Your task to perform on an android device: Turn off the flashlight Image 0: 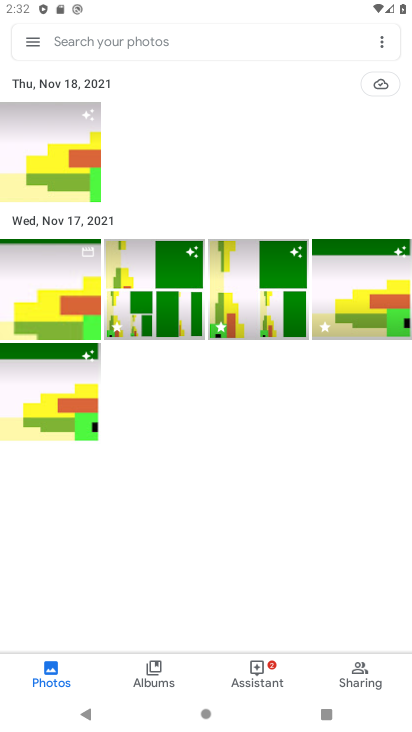
Step 0: press home button
Your task to perform on an android device: Turn off the flashlight Image 1: 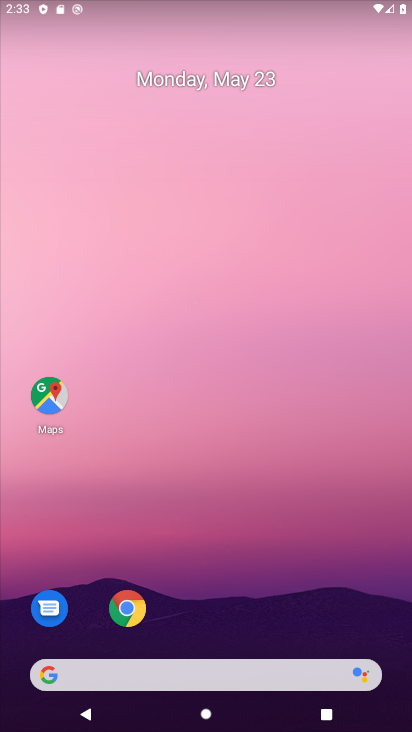
Step 1: drag from (203, 594) to (259, 252)
Your task to perform on an android device: Turn off the flashlight Image 2: 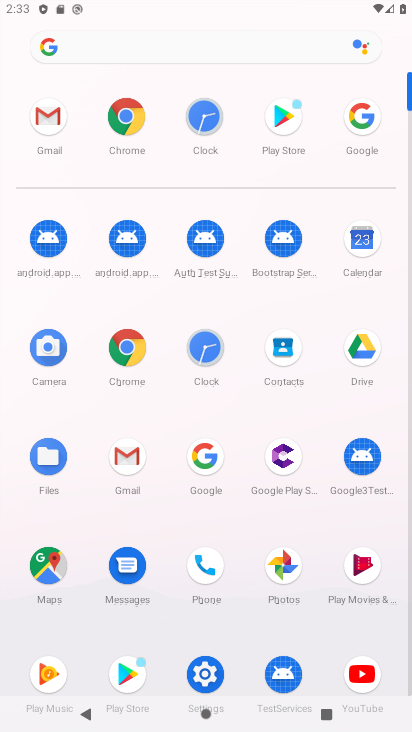
Step 2: click (202, 668)
Your task to perform on an android device: Turn off the flashlight Image 3: 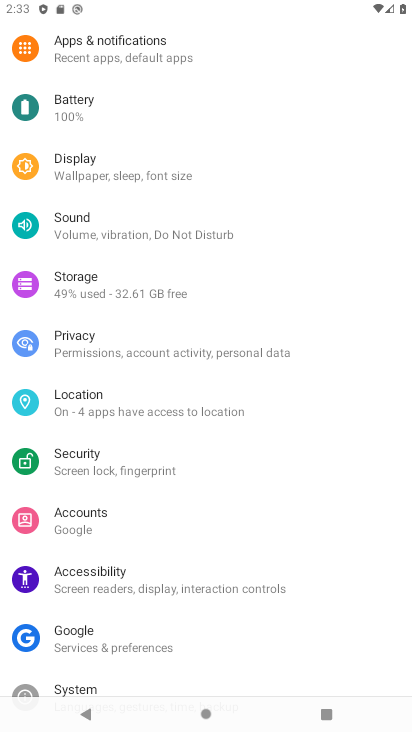
Step 3: task complete